Your task to perform on an android device: Go to eBay Image 0: 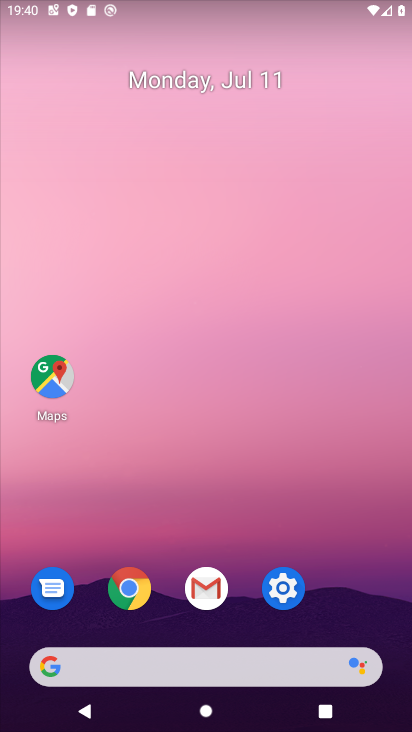
Step 0: click (132, 602)
Your task to perform on an android device: Go to eBay Image 1: 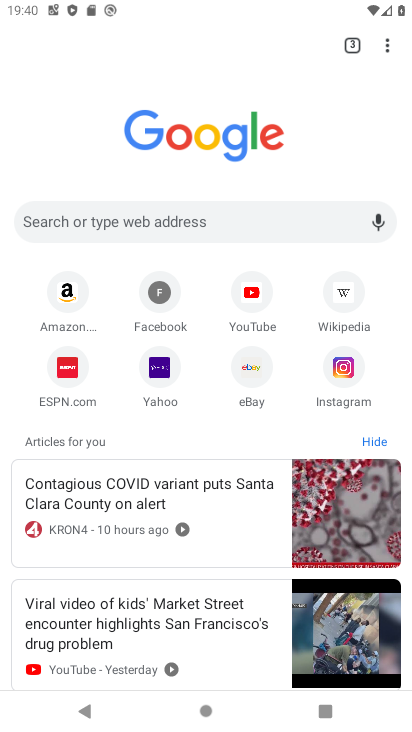
Step 1: click (258, 367)
Your task to perform on an android device: Go to eBay Image 2: 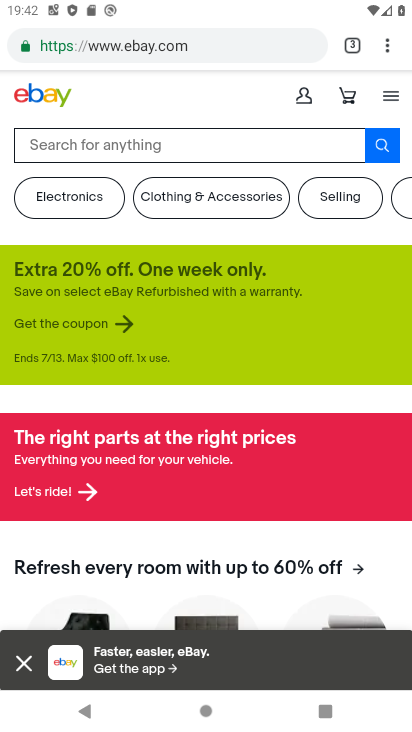
Step 2: task complete